Your task to perform on an android device: Open the stopwatch Image 0: 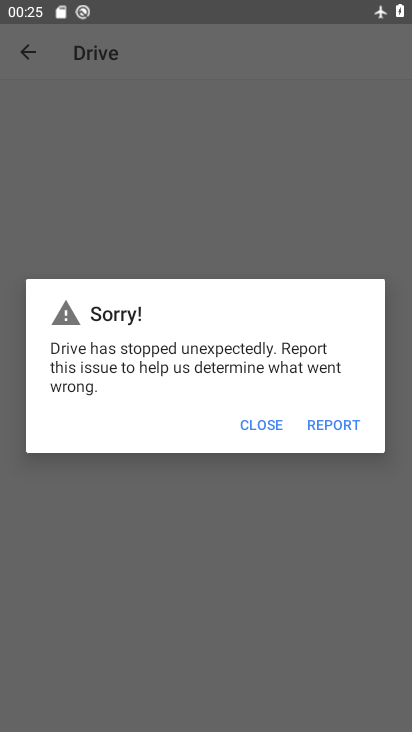
Step 0: press home button
Your task to perform on an android device: Open the stopwatch Image 1: 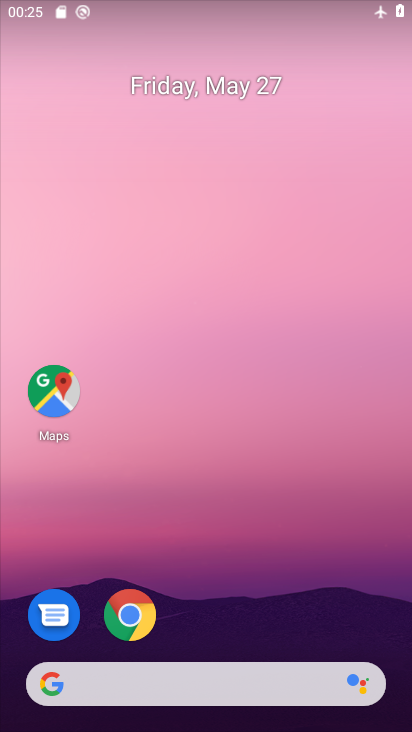
Step 1: drag from (375, 628) to (382, 346)
Your task to perform on an android device: Open the stopwatch Image 2: 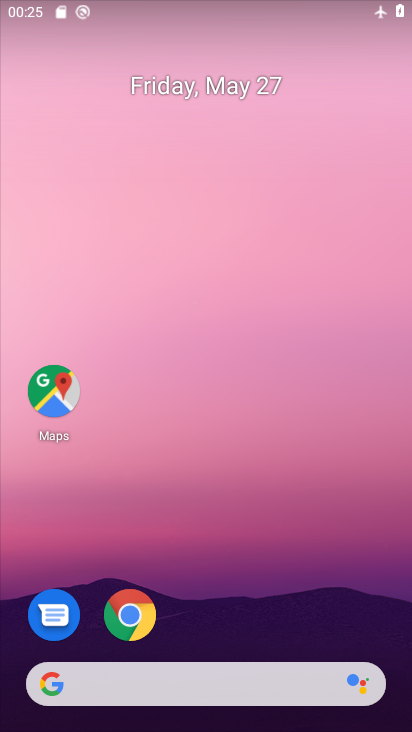
Step 2: drag from (377, 620) to (378, 355)
Your task to perform on an android device: Open the stopwatch Image 3: 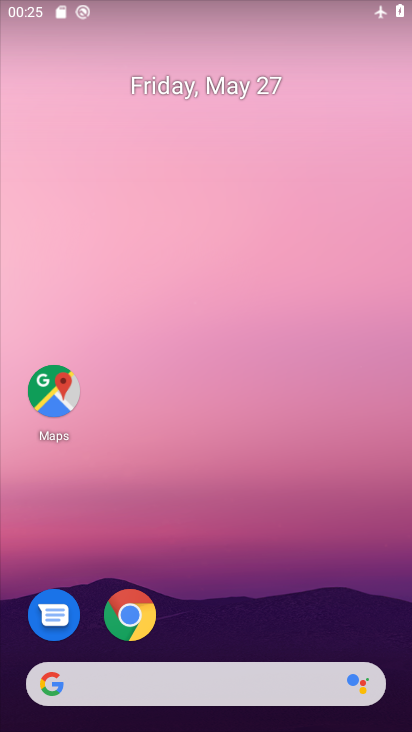
Step 3: drag from (385, 616) to (386, 241)
Your task to perform on an android device: Open the stopwatch Image 4: 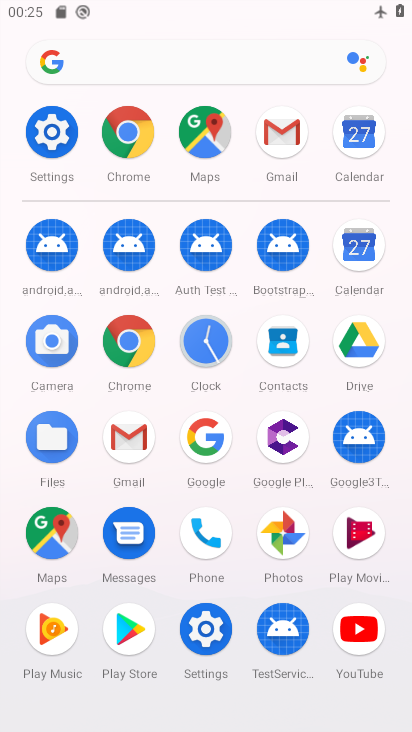
Step 4: click (214, 354)
Your task to perform on an android device: Open the stopwatch Image 5: 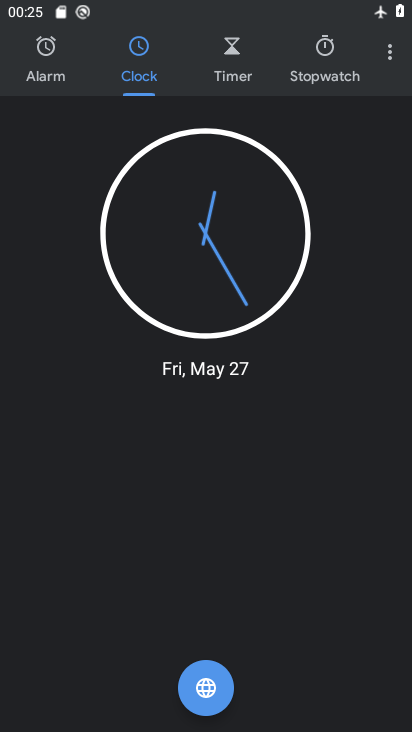
Step 5: click (330, 73)
Your task to perform on an android device: Open the stopwatch Image 6: 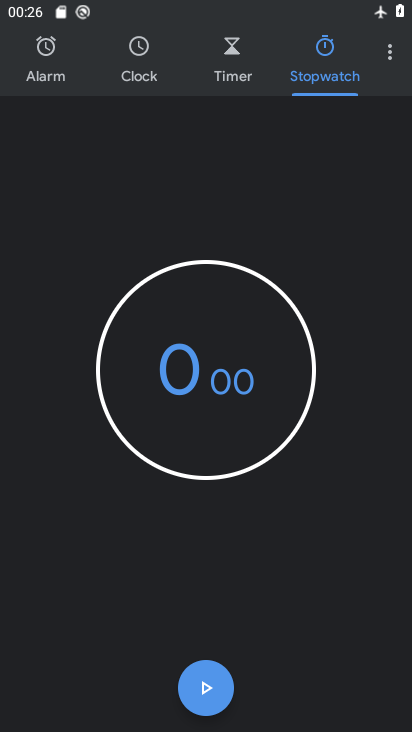
Step 6: task complete